Your task to perform on an android device: Go to calendar. Show me events next week Image 0: 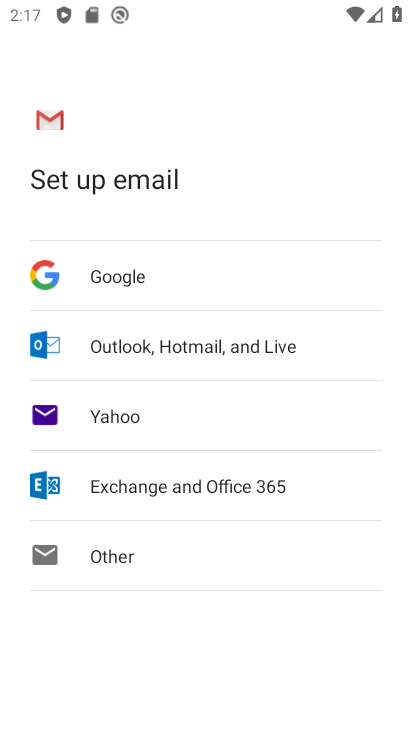
Step 0: press home button
Your task to perform on an android device: Go to calendar. Show me events next week Image 1: 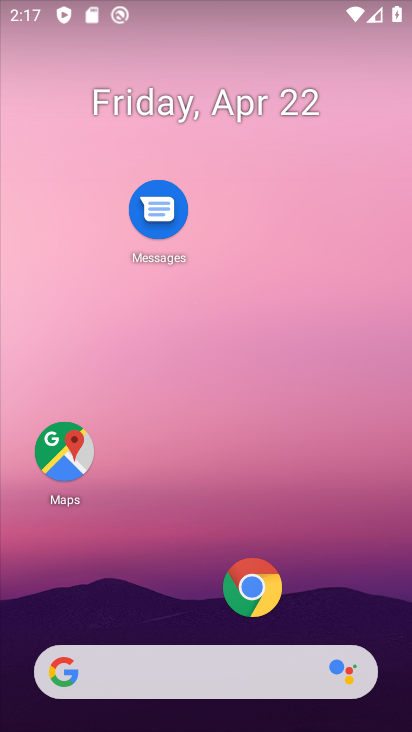
Step 1: drag from (203, 497) to (227, 222)
Your task to perform on an android device: Go to calendar. Show me events next week Image 2: 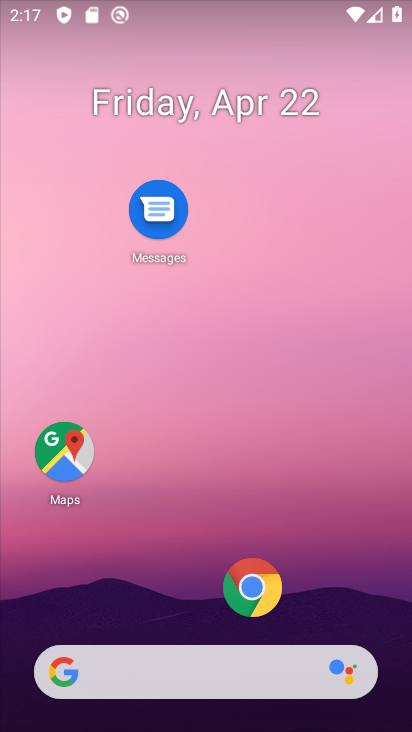
Step 2: drag from (183, 564) to (247, 203)
Your task to perform on an android device: Go to calendar. Show me events next week Image 3: 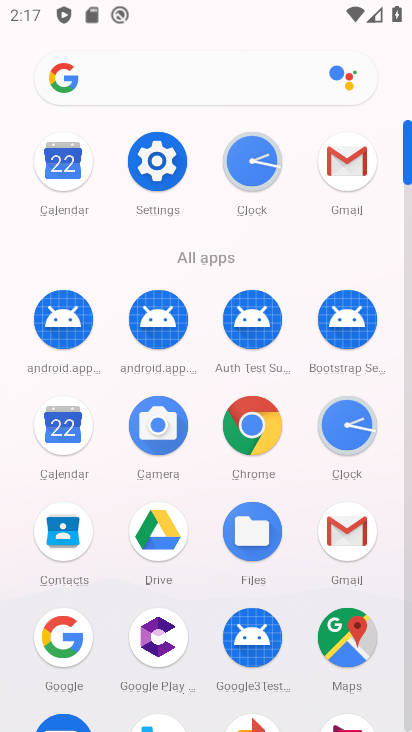
Step 3: click (64, 426)
Your task to perform on an android device: Go to calendar. Show me events next week Image 4: 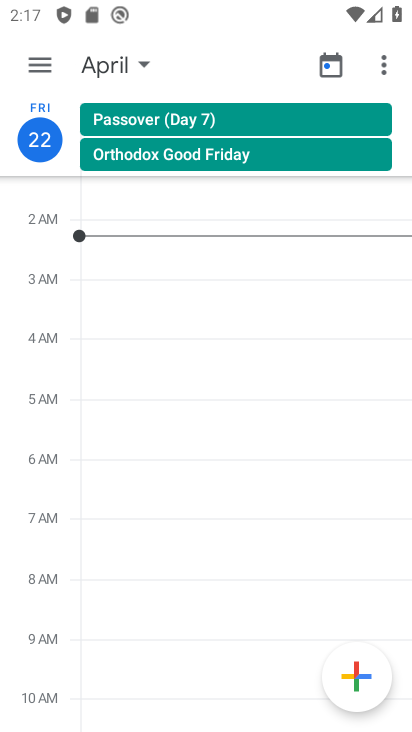
Step 4: click (46, 64)
Your task to perform on an android device: Go to calendar. Show me events next week Image 5: 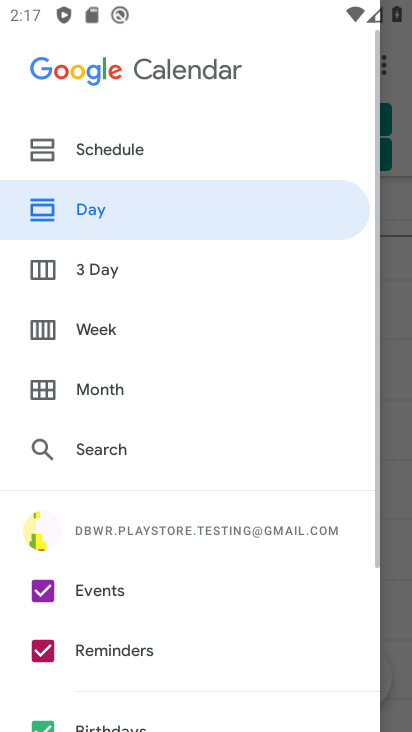
Step 5: click (92, 329)
Your task to perform on an android device: Go to calendar. Show me events next week Image 6: 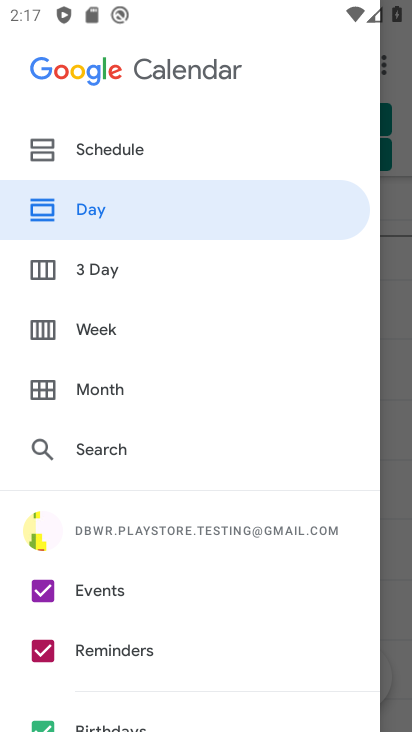
Step 6: click (157, 337)
Your task to perform on an android device: Go to calendar. Show me events next week Image 7: 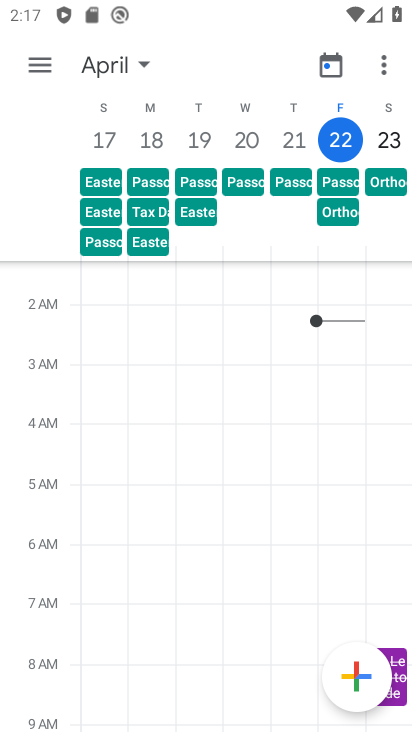
Step 7: drag from (390, 390) to (60, 388)
Your task to perform on an android device: Go to calendar. Show me events next week Image 8: 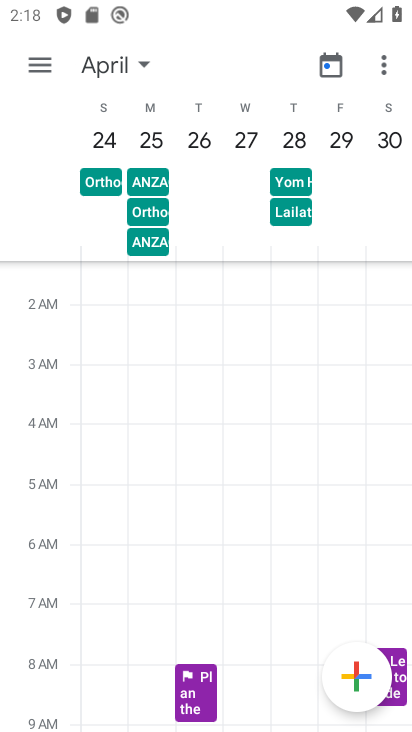
Step 8: click (29, 69)
Your task to perform on an android device: Go to calendar. Show me events next week Image 9: 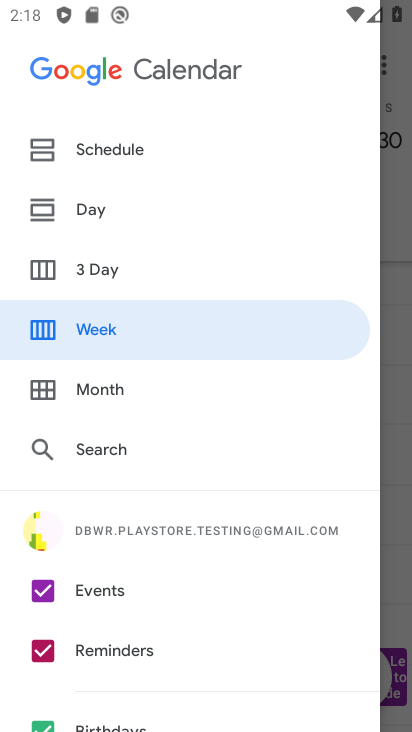
Step 9: click (42, 653)
Your task to perform on an android device: Go to calendar. Show me events next week Image 10: 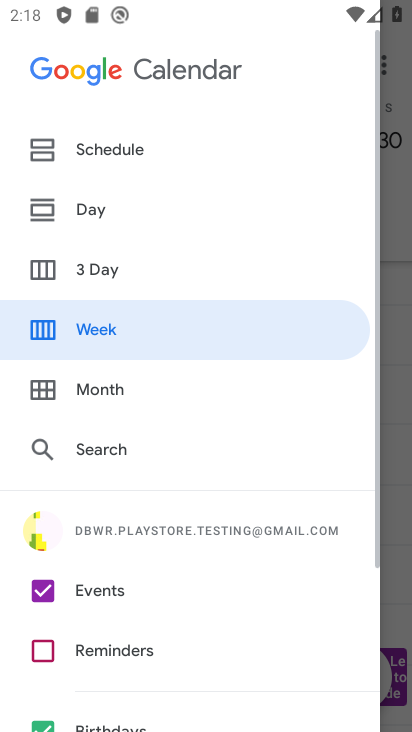
Step 10: drag from (118, 646) to (155, 378)
Your task to perform on an android device: Go to calendar. Show me events next week Image 11: 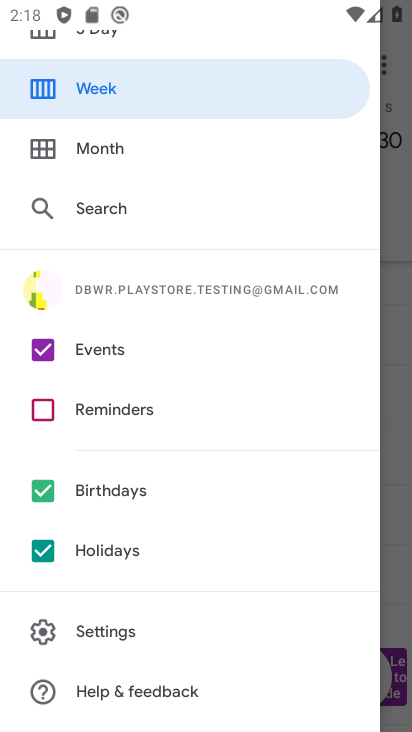
Step 11: click (38, 491)
Your task to perform on an android device: Go to calendar. Show me events next week Image 12: 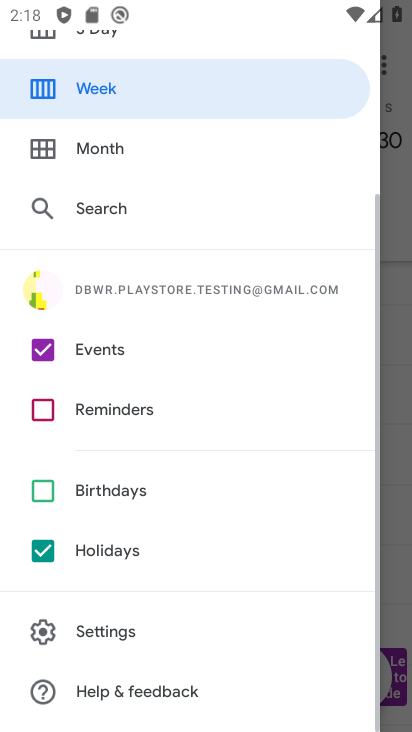
Step 12: click (41, 552)
Your task to perform on an android device: Go to calendar. Show me events next week Image 13: 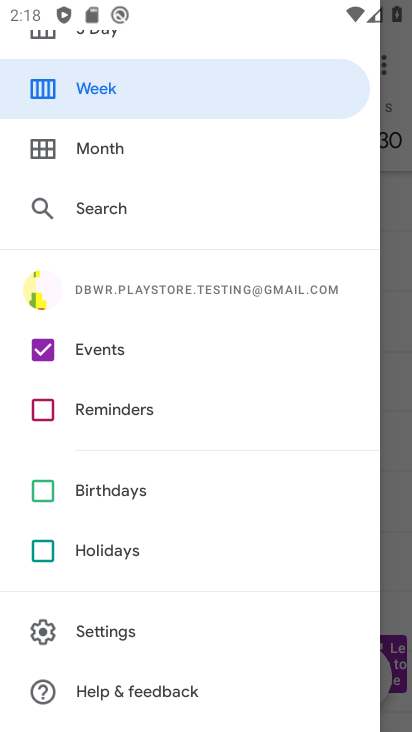
Step 13: task complete